Your task to perform on an android device: Show me popular games on the Play Store Image 0: 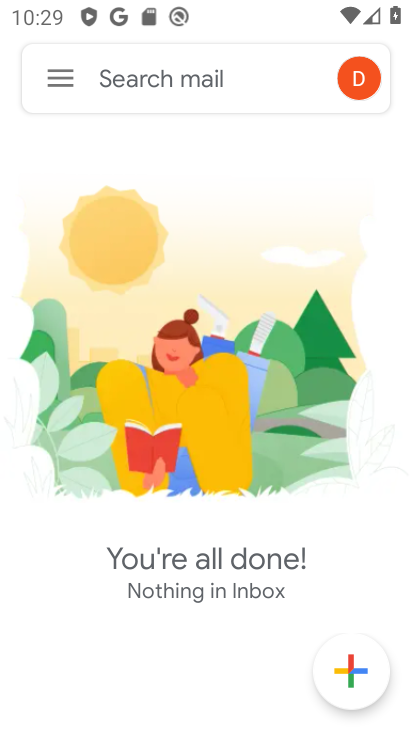
Step 0: press back button
Your task to perform on an android device: Show me popular games on the Play Store Image 1: 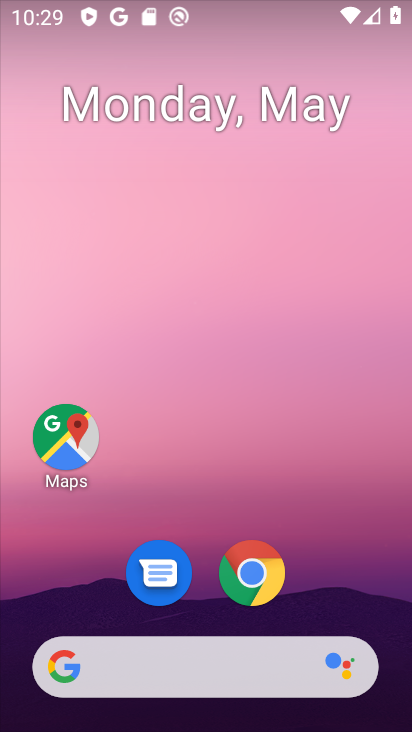
Step 1: drag from (192, 594) to (244, 157)
Your task to perform on an android device: Show me popular games on the Play Store Image 2: 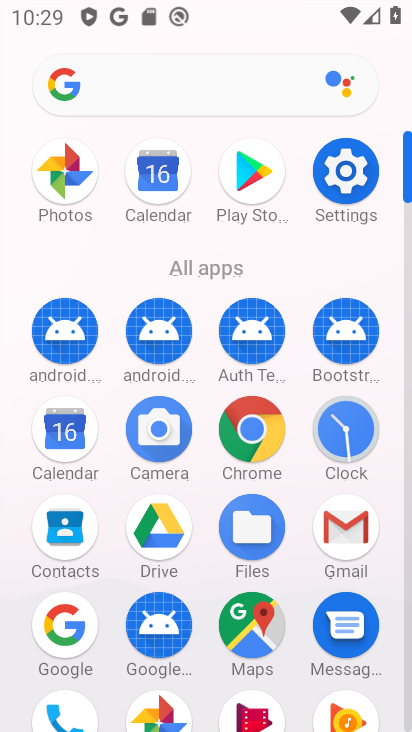
Step 2: drag from (172, 628) to (275, 136)
Your task to perform on an android device: Show me popular games on the Play Store Image 3: 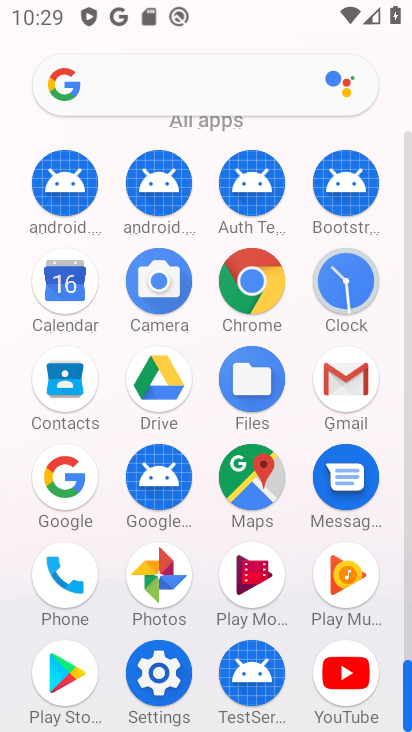
Step 3: click (77, 685)
Your task to perform on an android device: Show me popular games on the Play Store Image 4: 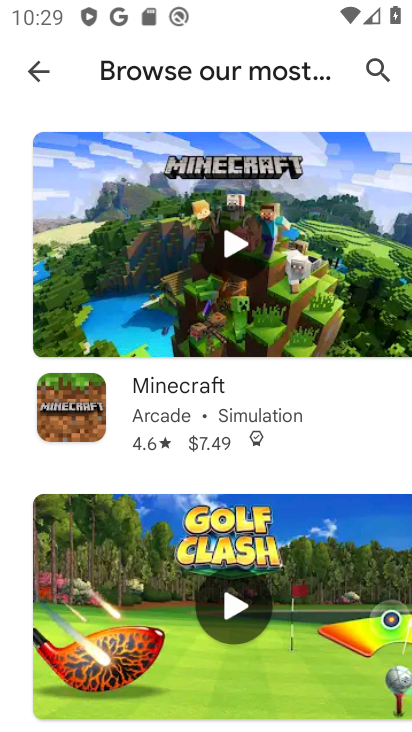
Step 4: click (42, 62)
Your task to perform on an android device: Show me popular games on the Play Store Image 5: 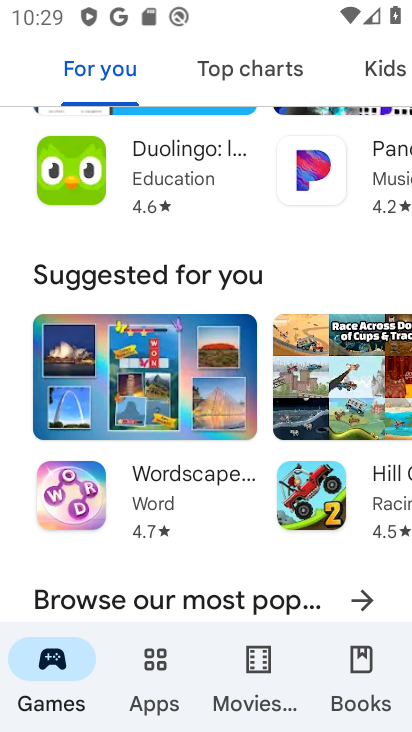
Step 5: click (346, 600)
Your task to perform on an android device: Show me popular games on the Play Store Image 6: 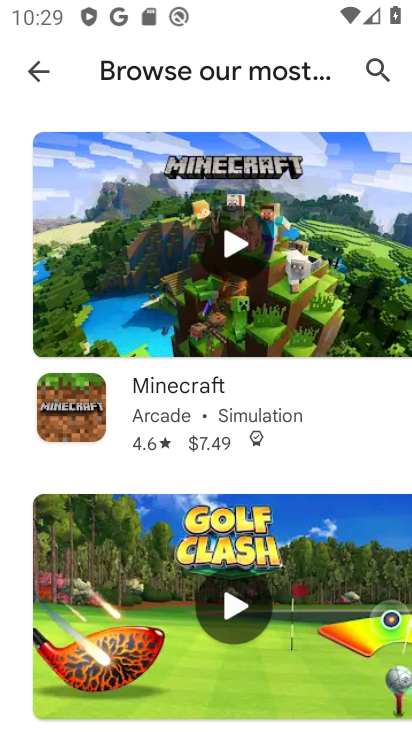
Step 6: task complete